Your task to perform on an android device: turn off smart reply in the gmail app Image 0: 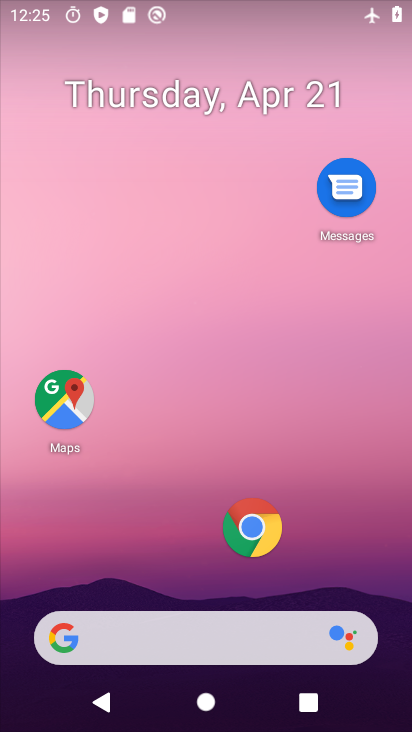
Step 0: drag from (337, 552) to (370, 10)
Your task to perform on an android device: turn off smart reply in the gmail app Image 1: 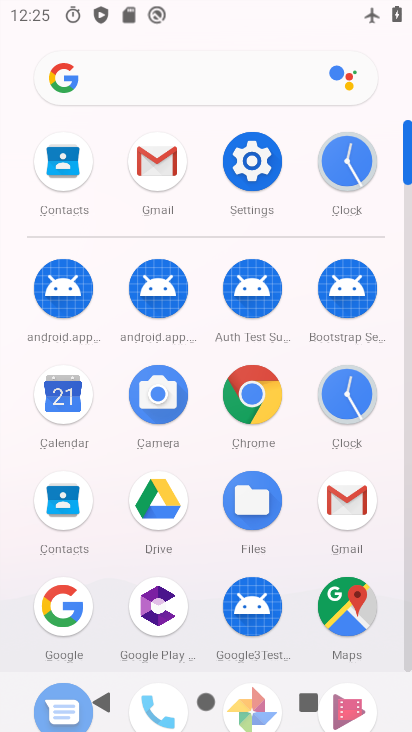
Step 1: click (156, 174)
Your task to perform on an android device: turn off smart reply in the gmail app Image 2: 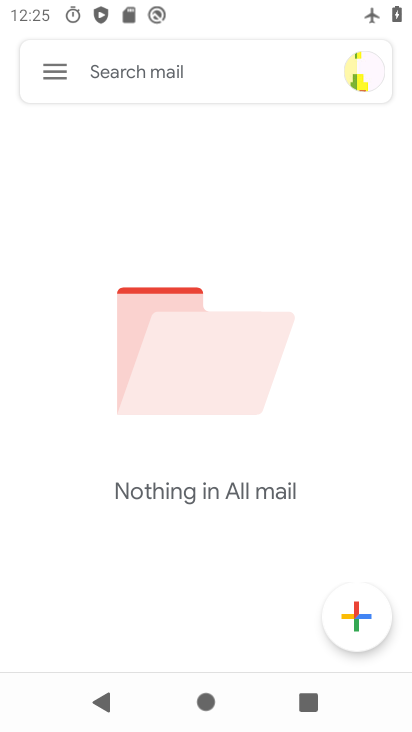
Step 2: click (42, 65)
Your task to perform on an android device: turn off smart reply in the gmail app Image 3: 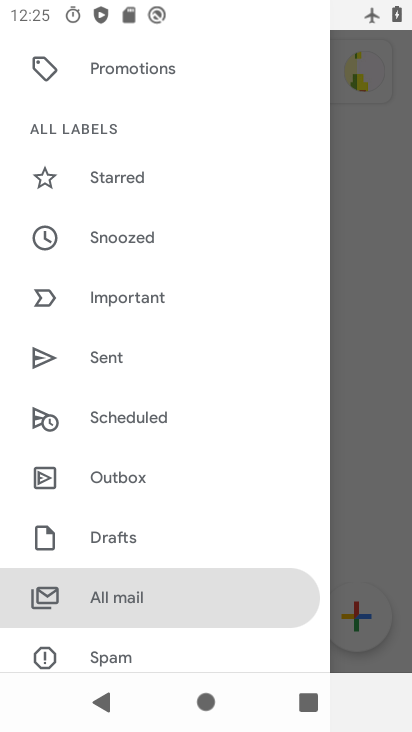
Step 3: drag from (106, 371) to (139, 309)
Your task to perform on an android device: turn off smart reply in the gmail app Image 4: 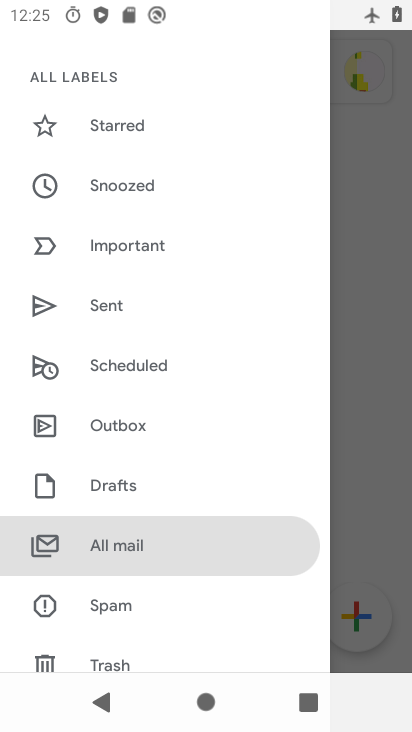
Step 4: drag from (126, 331) to (155, 278)
Your task to perform on an android device: turn off smart reply in the gmail app Image 5: 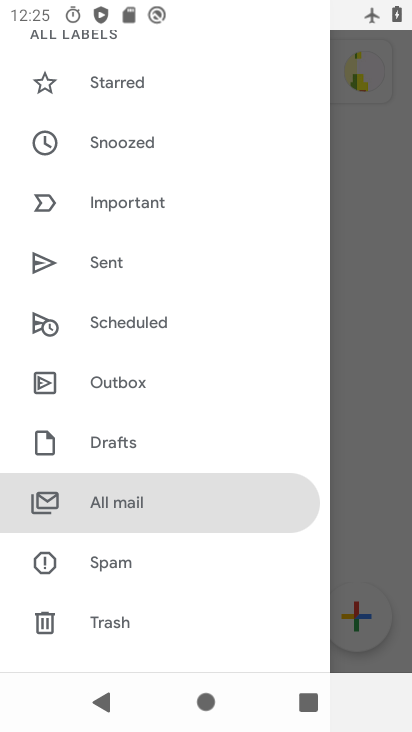
Step 5: drag from (134, 317) to (165, 248)
Your task to perform on an android device: turn off smart reply in the gmail app Image 6: 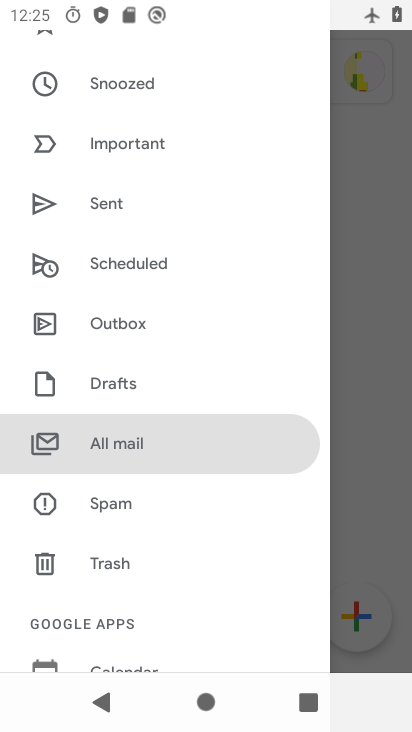
Step 6: drag from (144, 289) to (172, 241)
Your task to perform on an android device: turn off smart reply in the gmail app Image 7: 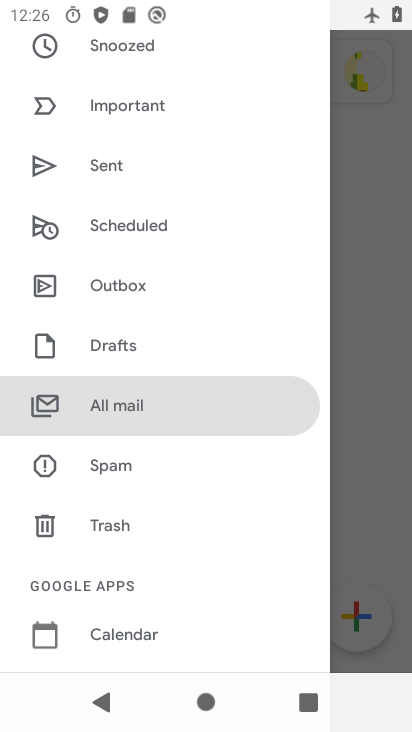
Step 7: drag from (179, 443) to (211, 348)
Your task to perform on an android device: turn off smart reply in the gmail app Image 8: 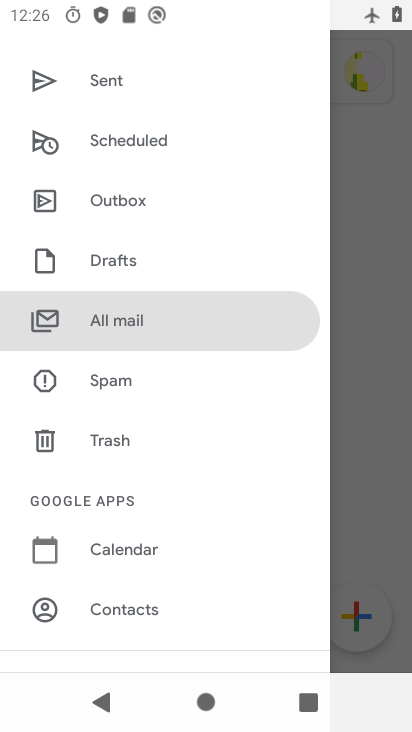
Step 8: drag from (208, 581) to (234, 494)
Your task to perform on an android device: turn off smart reply in the gmail app Image 9: 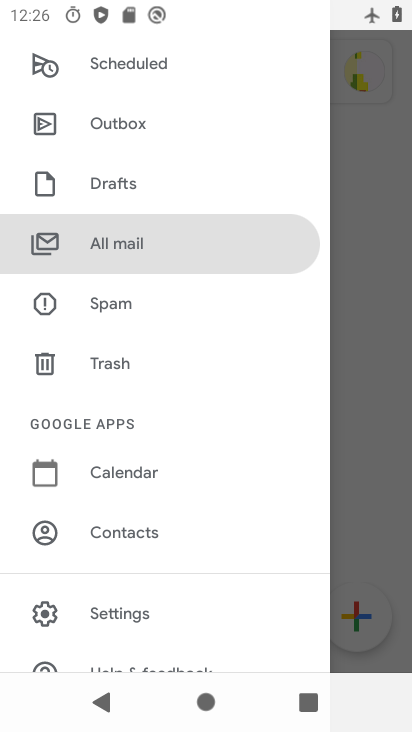
Step 9: click (153, 608)
Your task to perform on an android device: turn off smart reply in the gmail app Image 10: 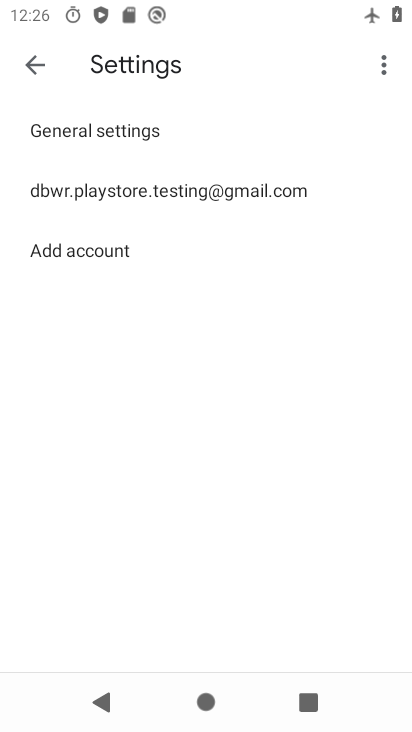
Step 10: click (215, 204)
Your task to perform on an android device: turn off smart reply in the gmail app Image 11: 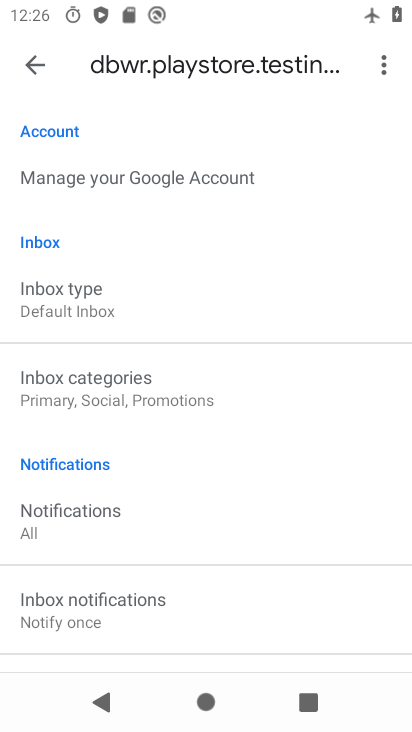
Step 11: drag from (284, 622) to (315, 541)
Your task to perform on an android device: turn off smart reply in the gmail app Image 12: 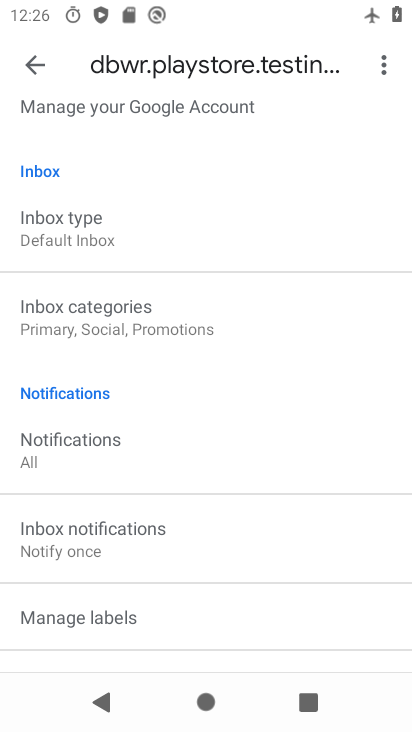
Step 12: drag from (326, 633) to (349, 505)
Your task to perform on an android device: turn off smart reply in the gmail app Image 13: 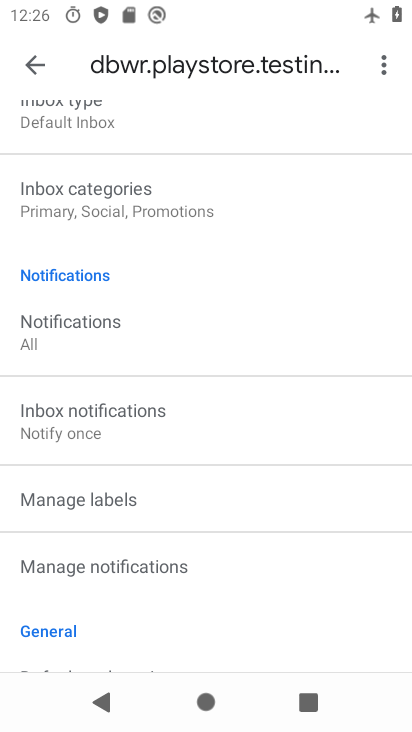
Step 13: drag from (338, 581) to (364, 491)
Your task to perform on an android device: turn off smart reply in the gmail app Image 14: 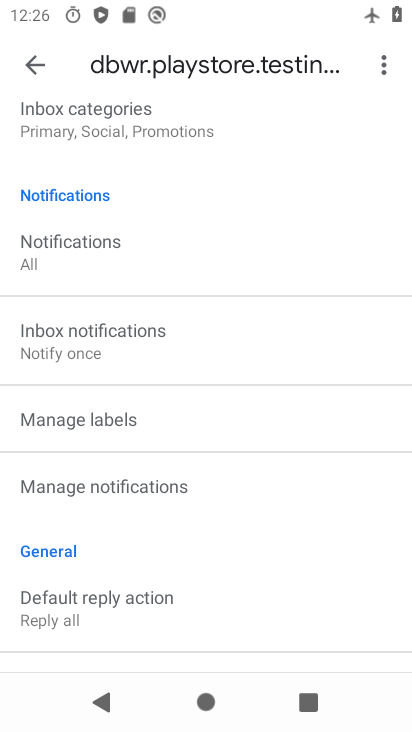
Step 14: drag from (331, 607) to (358, 534)
Your task to perform on an android device: turn off smart reply in the gmail app Image 15: 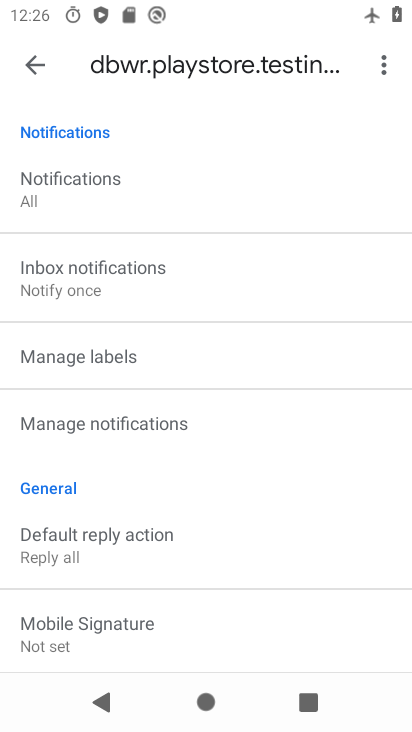
Step 15: drag from (353, 589) to (374, 518)
Your task to perform on an android device: turn off smart reply in the gmail app Image 16: 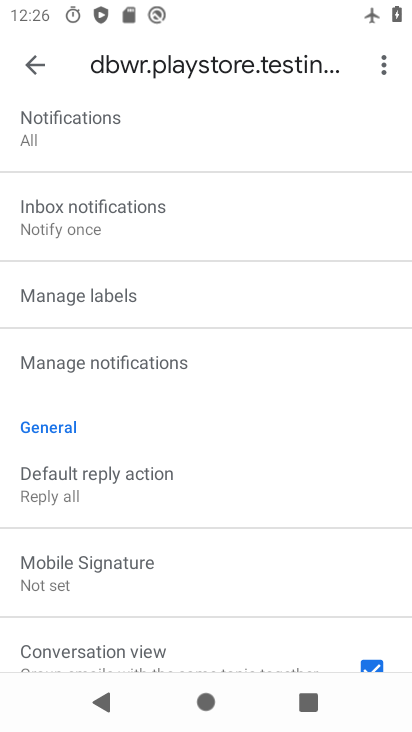
Step 16: drag from (347, 591) to (374, 514)
Your task to perform on an android device: turn off smart reply in the gmail app Image 17: 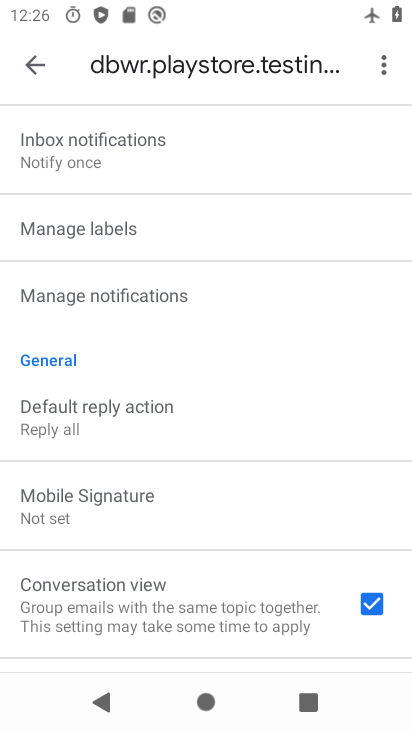
Step 17: drag from (336, 605) to (359, 538)
Your task to perform on an android device: turn off smart reply in the gmail app Image 18: 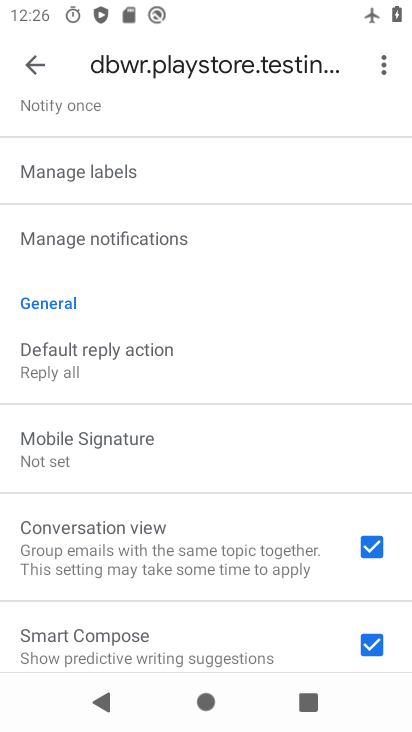
Step 18: drag from (346, 623) to (373, 550)
Your task to perform on an android device: turn off smart reply in the gmail app Image 19: 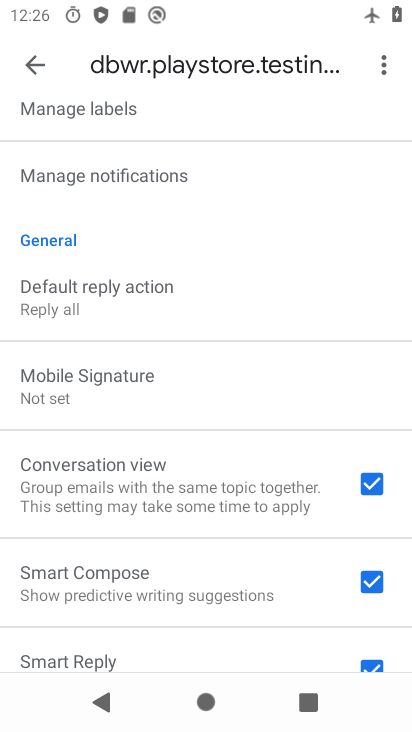
Step 19: drag from (344, 608) to (362, 557)
Your task to perform on an android device: turn off smart reply in the gmail app Image 20: 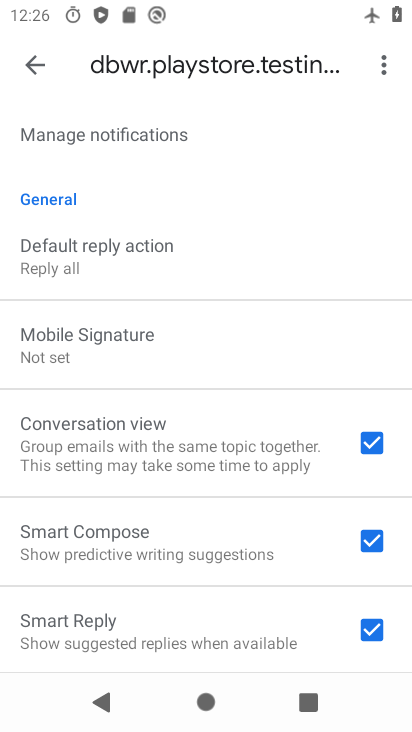
Step 20: drag from (326, 634) to (346, 569)
Your task to perform on an android device: turn off smart reply in the gmail app Image 21: 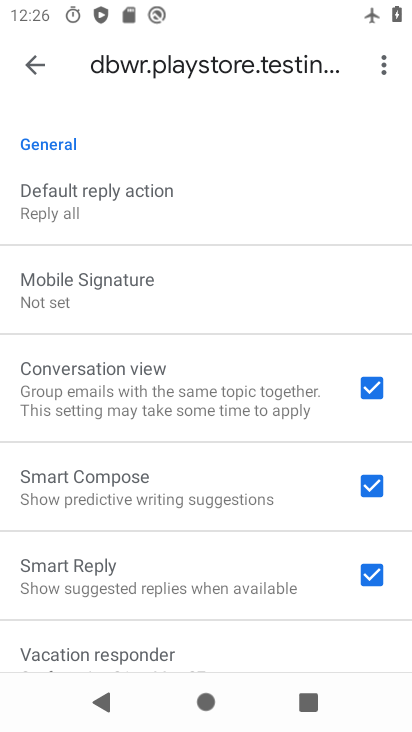
Step 21: click (347, 581)
Your task to perform on an android device: turn off smart reply in the gmail app Image 22: 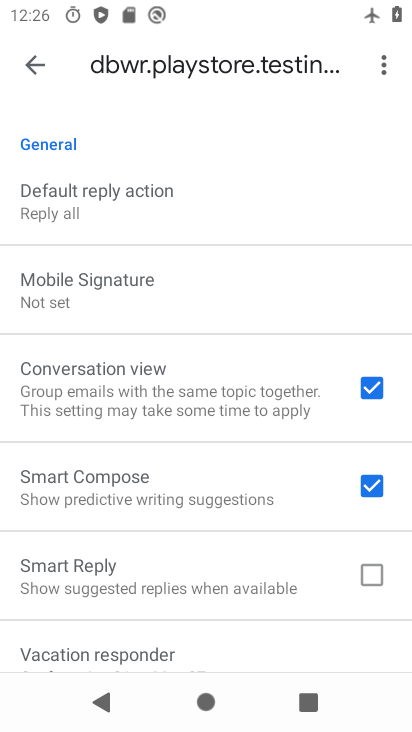
Step 22: task complete